Your task to perform on an android device: check battery use Image 0: 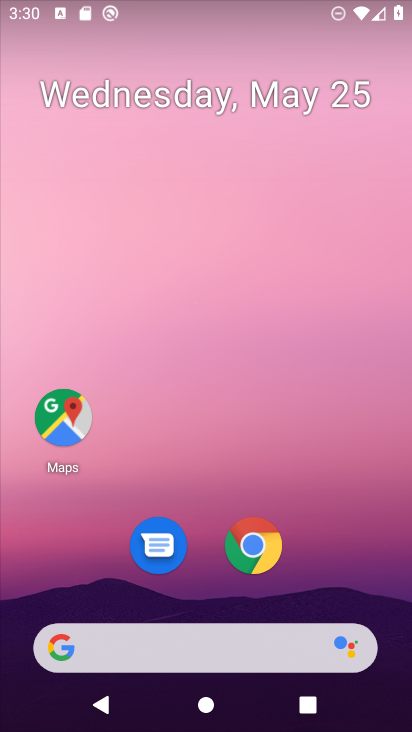
Step 0: drag from (373, 575) to (315, 84)
Your task to perform on an android device: check battery use Image 1: 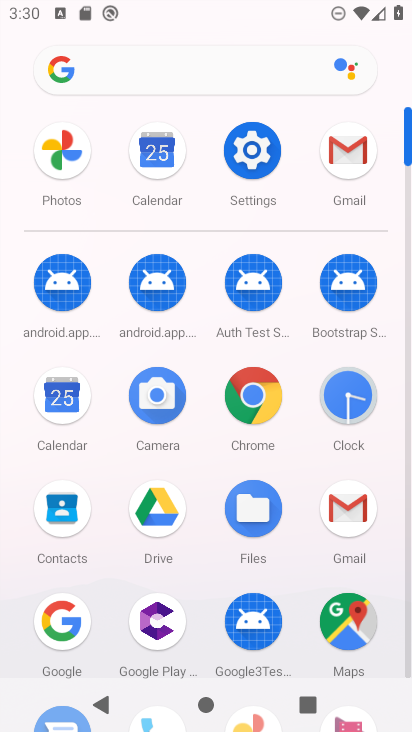
Step 1: click (250, 164)
Your task to perform on an android device: check battery use Image 2: 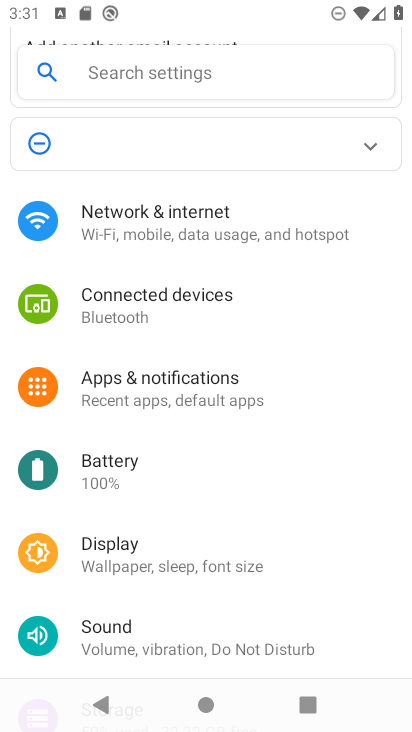
Step 2: click (141, 495)
Your task to perform on an android device: check battery use Image 3: 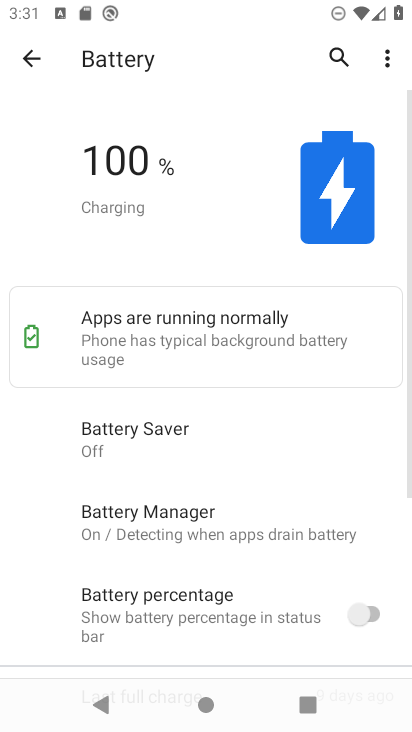
Step 3: task complete